Your task to perform on an android device: toggle location history Image 0: 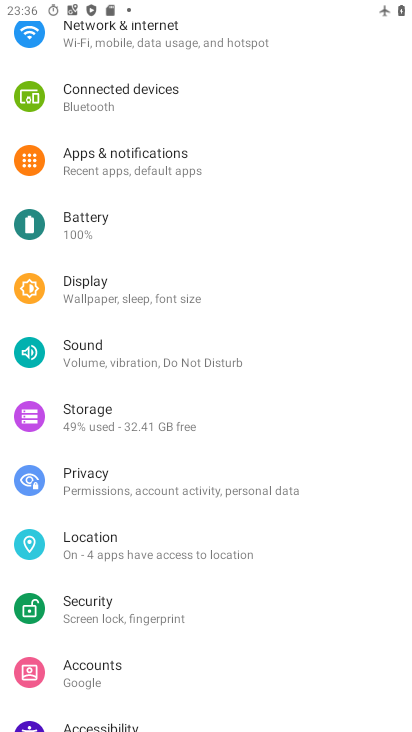
Step 0: press home button
Your task to perform on an android device: toggle location history Image 1: 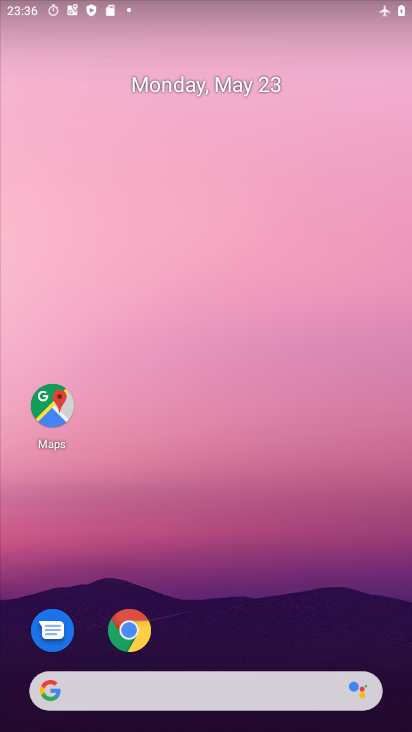
Step 1: click (54, 405)
Your task to perform on an android device: toggle location history Image 2: 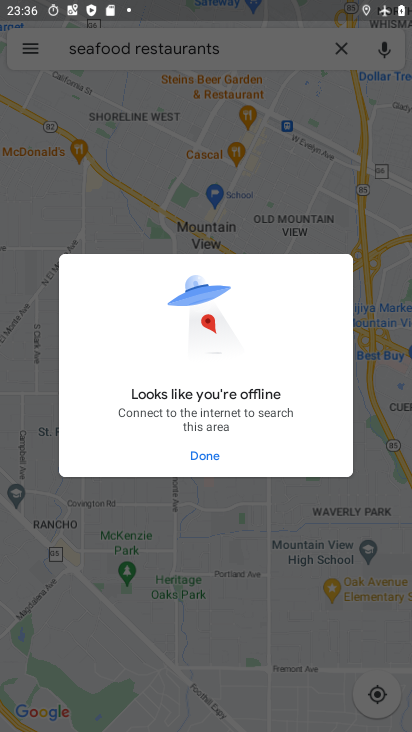
Step 2: click (181, 448)
Your task to perform on an android device: toggle location history Image 3: 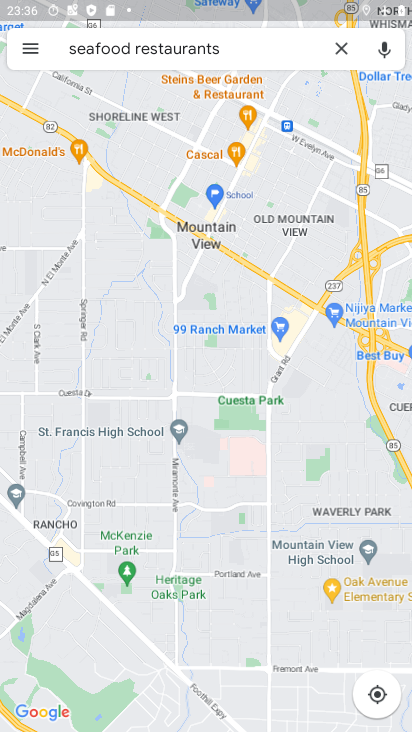
Step 3: click (29, 54)
Your task to perform on an android device: toggle location history Image 4: 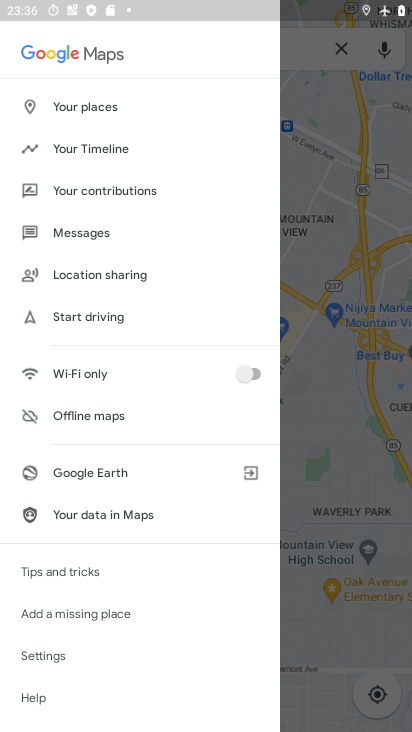
Step 4: click (73, 159)
Your task to perform on an android device: toggle location history Image 5: 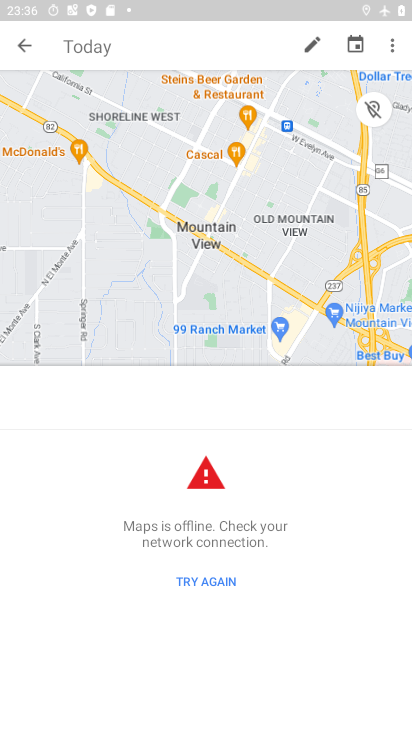
Step 5: click (389, 48)
Your task to perform on an android device: toggle location history Image 6: 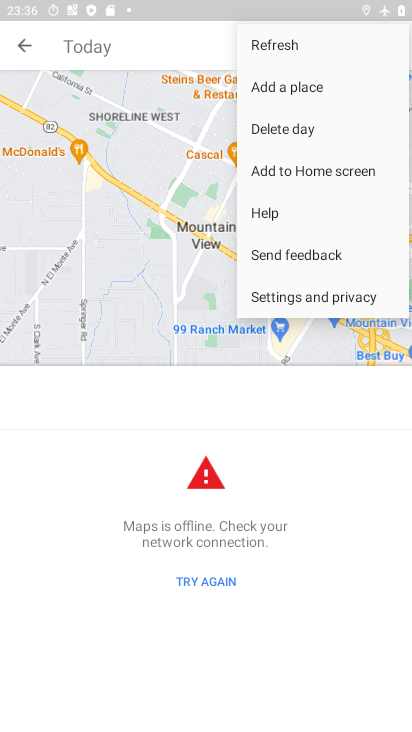
Step 6: click (289, 301)
Your task to perform on an android device: toggle location history Image 7: 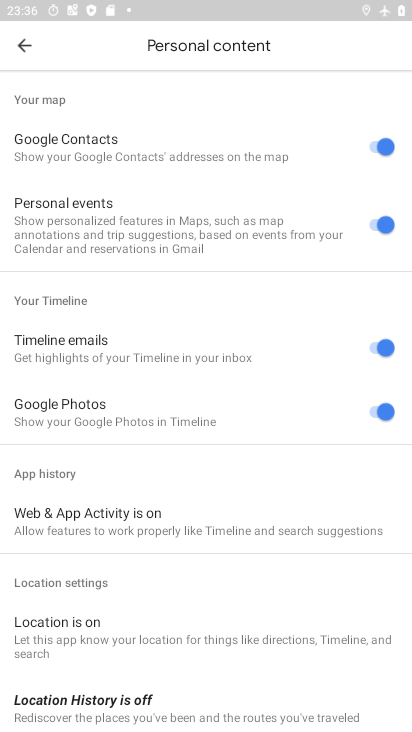
Step 7: drag from (160, 373) to (171, 161)
Your task to perform on an android device: toggle location history Image 8: 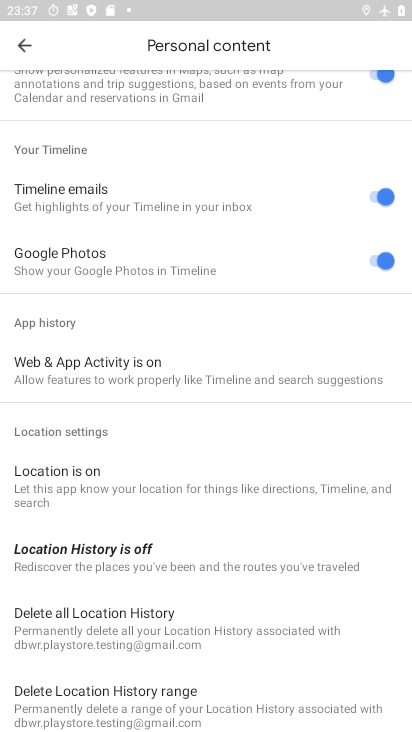
Step 8: click (97, 558)
Your task to perform on an android device: toggle location history Image 9: 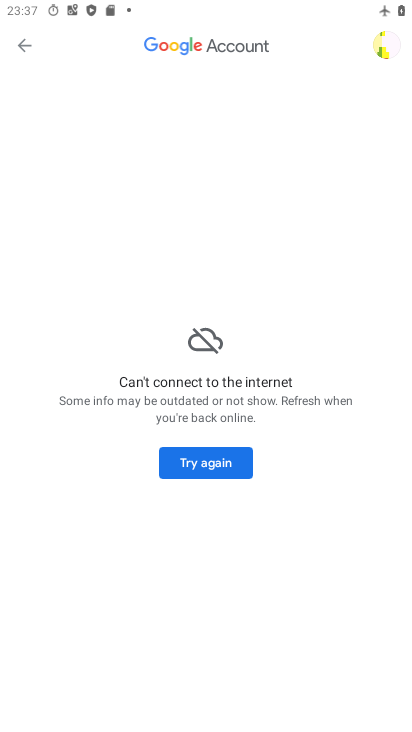
Step 9: task complete